Your task to perform on an android device: Turn on the flashlight Image 0: 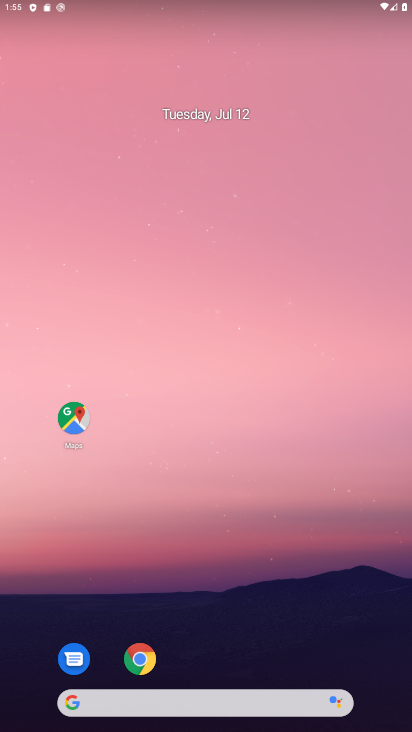
Step 0: drag from (342, 26) to (355, 584)
Your task to perform on an android device: Turn on the flashlight Image 1: 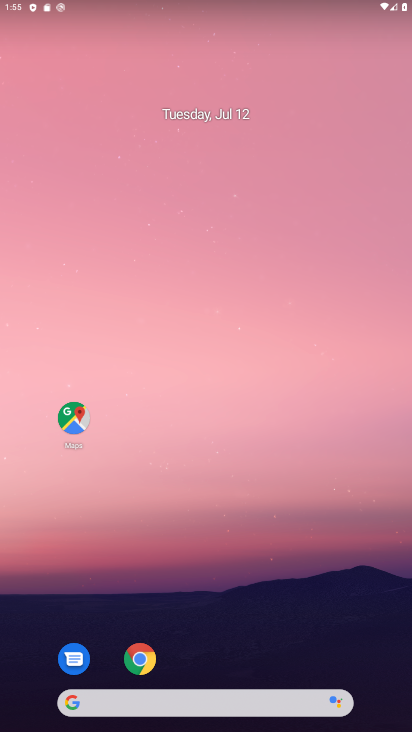
Step 1: task complete